Your task to perform on an android device: Do I have any events tomorrow? Image 0: 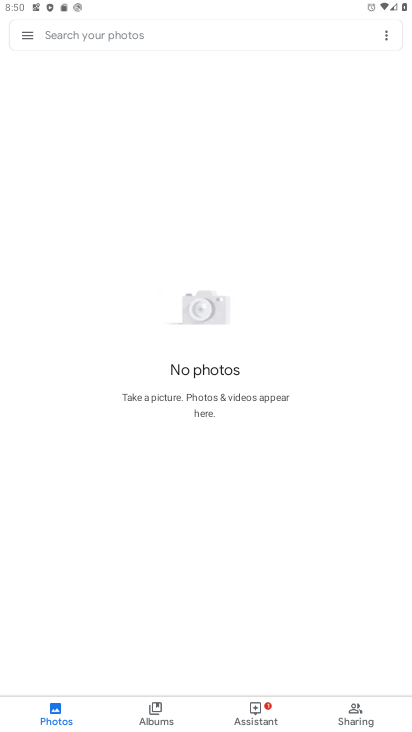
Step 0: press home button
Your task to perform on an android device: Do I have any events tomorrow? Image 1: 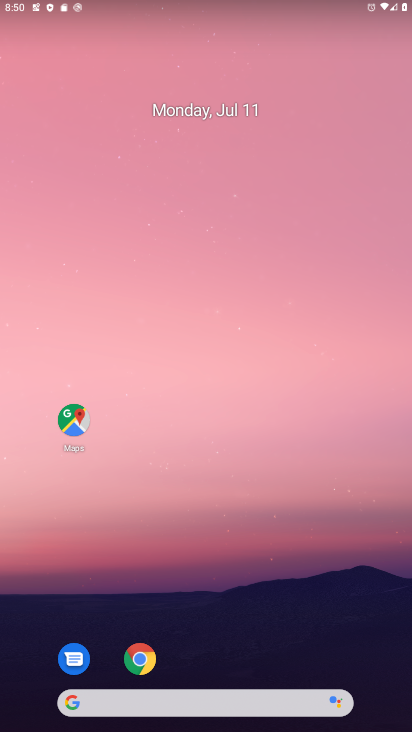
Step 1: drag from (230, 581) to (153, 127)
Your task to perform on an android device: Do I have any events tomorrow? Image 2: 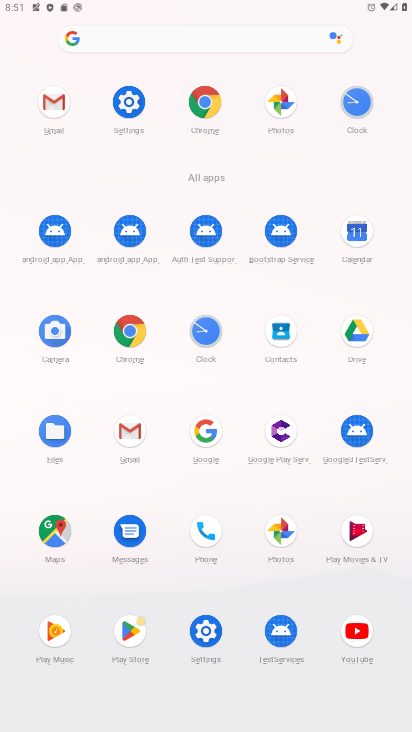
Step 2: click (359, 228)
Your task to perform on an android device: Do I have any events tomorrow? Image 3: 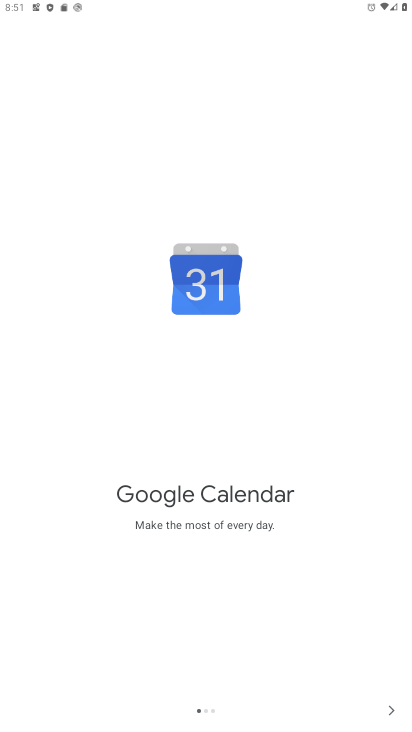
Step 3: click (392, 712)
Your task to perform on an android device: Do I have any events tomorrow? Image 4: 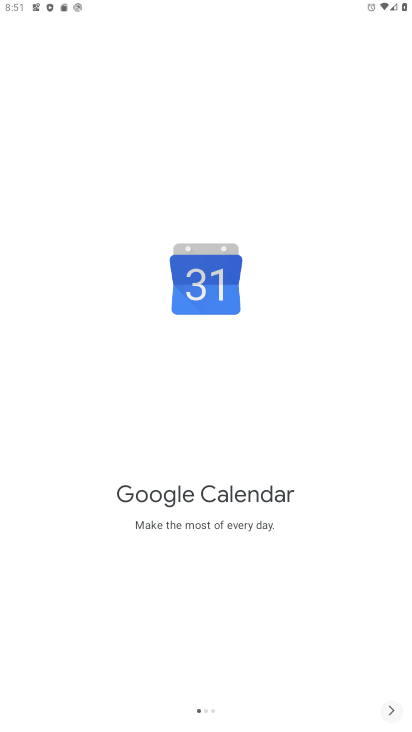
Step 4: click (392, 712)
Your task to perform on an android device: Do I have any events tomorrow? Image 5: 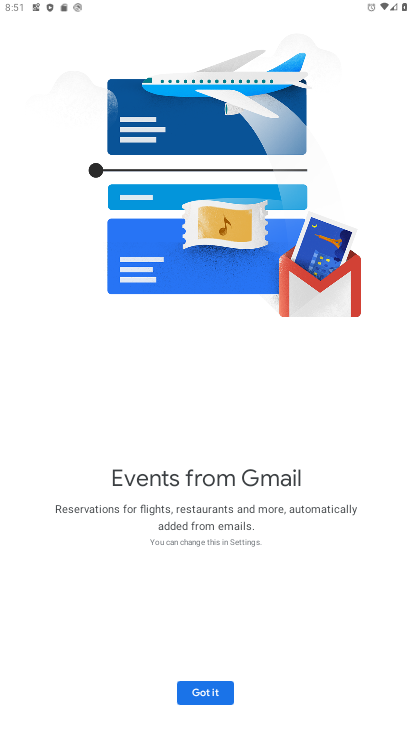
Step 5: click (219, 694)
Your task to perform on an android device: Do I have any events tomorrow? Image 6: 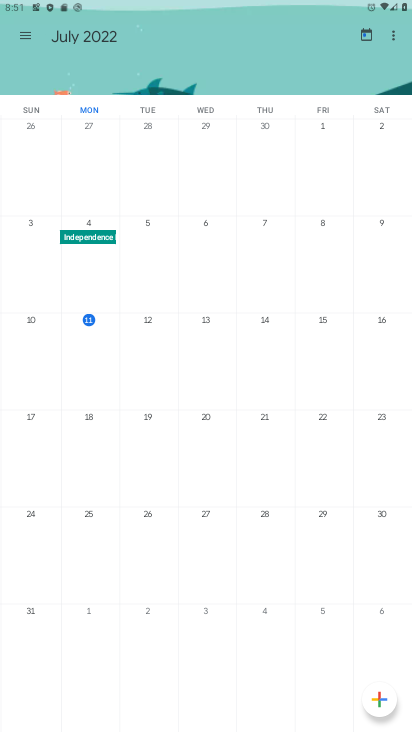
Step 6: click (146, 318)
Your task to perform on an android device: Do I have any events tomorrow? Image 7: 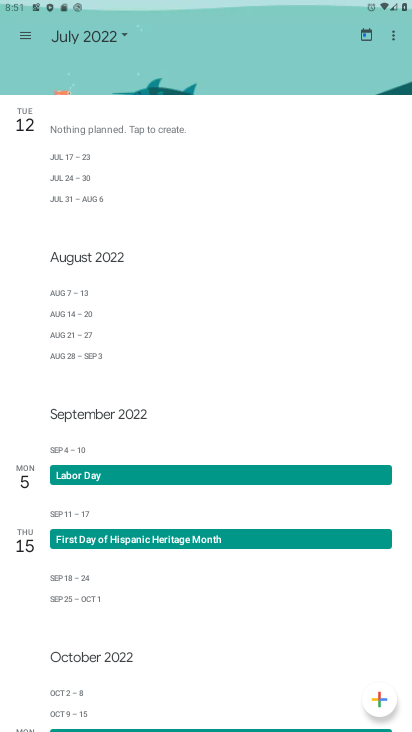
Step 7: task complete